Your task to perform on an android device: set default search engine in the chrome app Image 0: 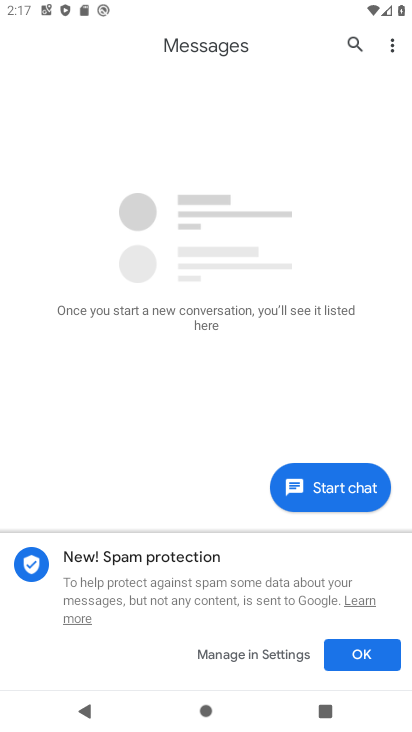
Step 0: press home button
Your task to perform on an android device: set default search engine in the chrome app Image 1: 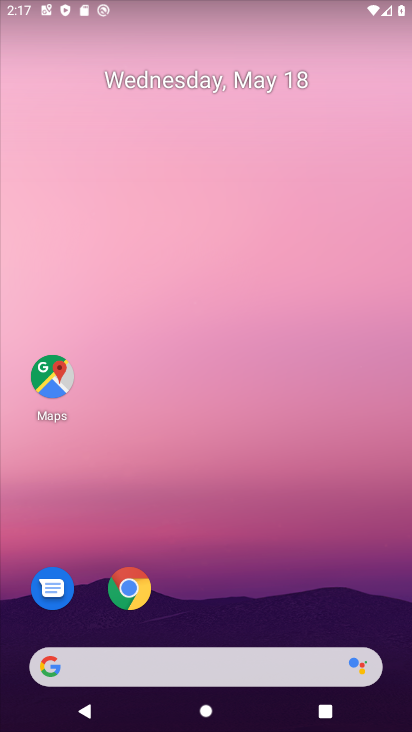
Step 1: drag from (350, 583) to (323, 140)
Your task to perform on an android device: set default search engine in the chrome app Image 2: 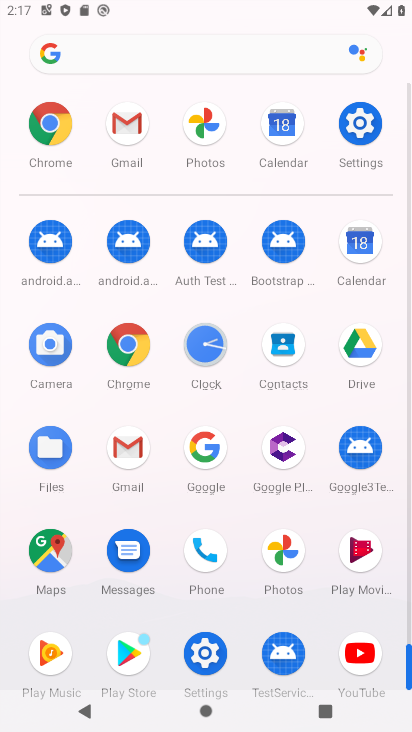
Step 2: click (137, 366)
Your task to perform on an android device: set default search engine in the chrome app Image 3: 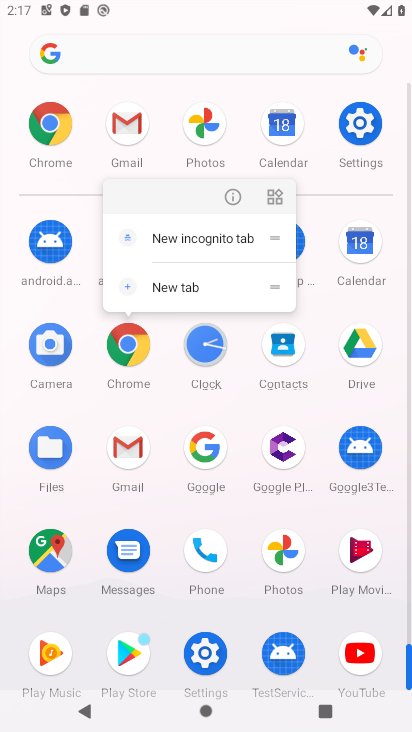
Step 3: click (137, 366)
Your task to perform on an android device: set default search engine in the chrome app Image 4: 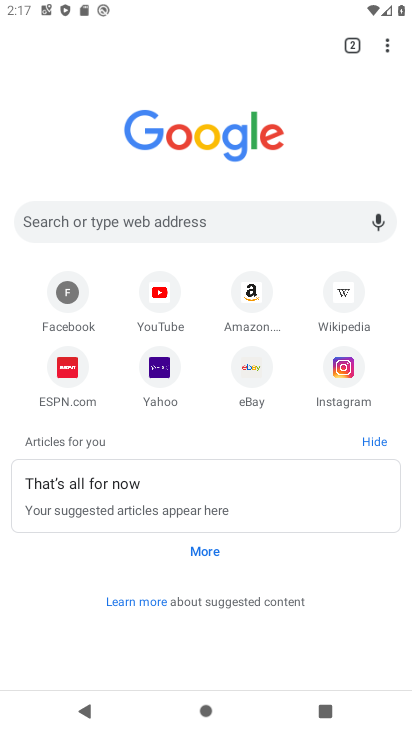
Step 4: click (385, 46)
Your task to perform on an android device: set default search engine in the chrome app Image 5: 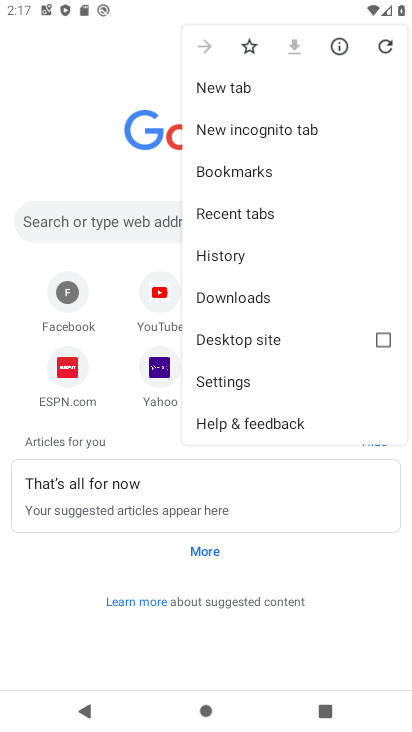
Step 5: click (238, 381)
Your task to perform on an android device: set default search engine in the chrome app Image 6: 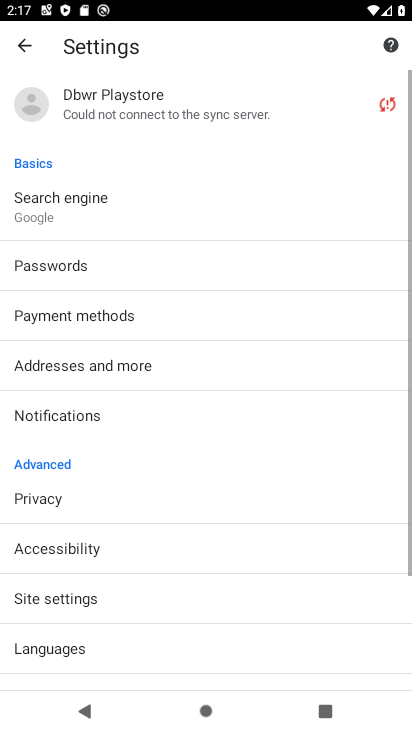
Step 6: drag from (276, 575) to (287, 462)
Your task to perform on an android device: set default search engine in the chrome app Image 7: 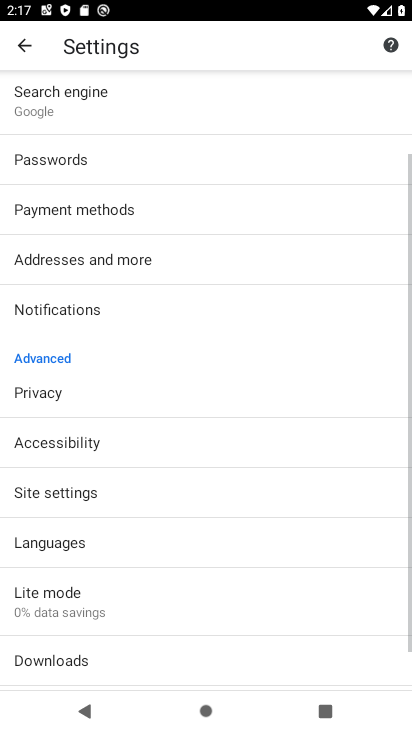
Step 7: drag from (270, 629) to (265, 471)
Your task to perform on an android device: set default search engine in the chrome app Image 8: 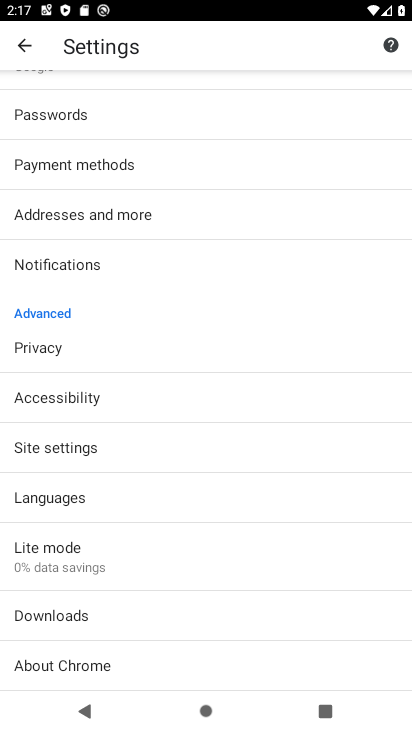
Step 8: drag from (240, 640) to (240, 414)
Your task to perform on an android device: set default search engine in the chrome app Image 9: 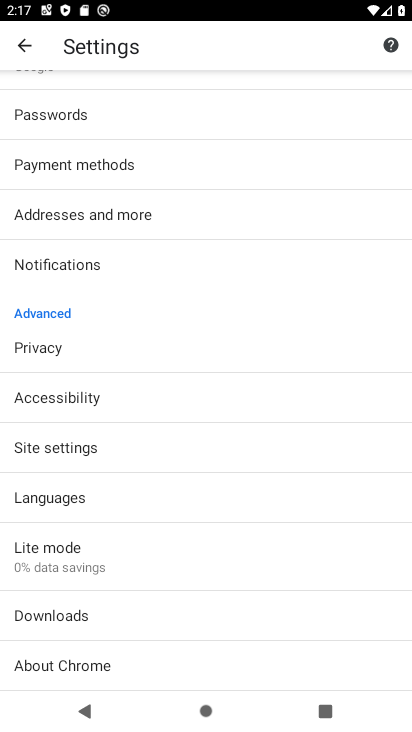
Step 9: drag from (249, 282) to (237, 380)
Your task to perform on an android device: set default search engine in the chrome app Image 10: 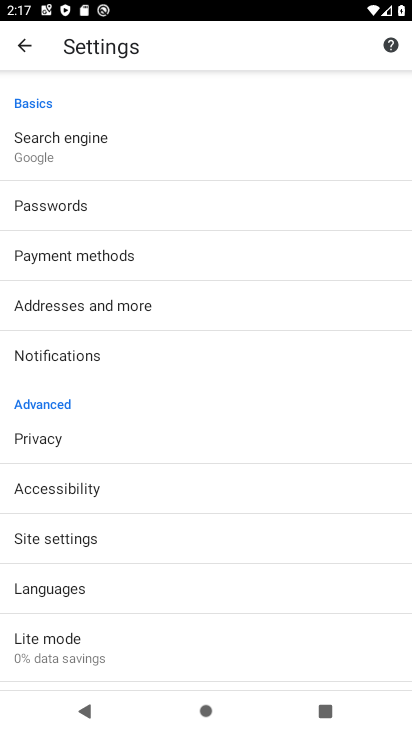
Step 10: drag from (235, 240) to (242, 388)
Your task to perform on an android device: set default search engine in the chrome app Image 11: 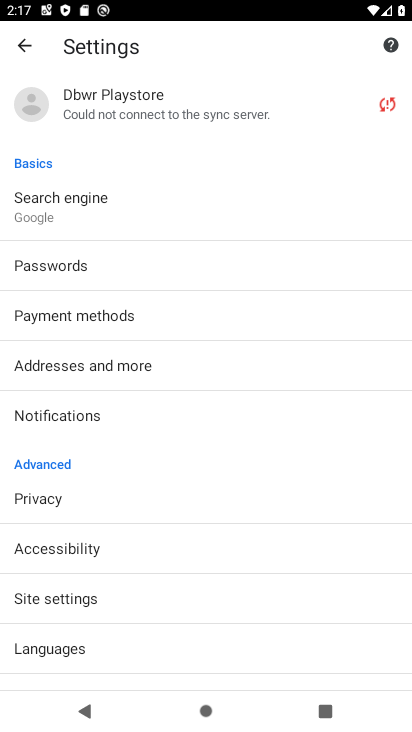
Step 11: drag from (239, 267) to (222, 390)
Your task to perform on an android device: set default search engine in the chrome app Image 12: 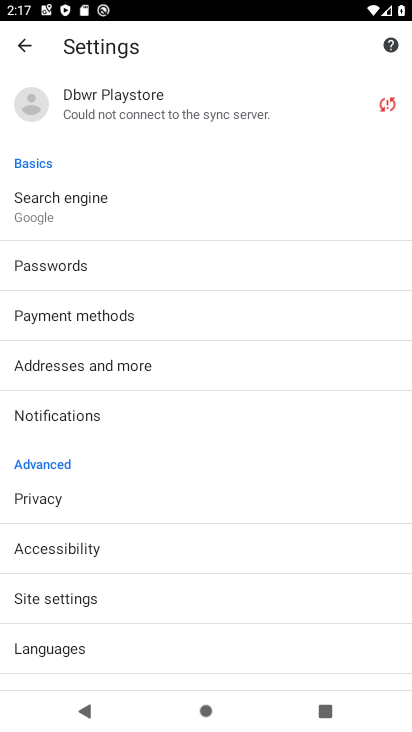
Step 12: click (80, 213)
Your task to perform on an android device: set default search engine in the chrome app Image 13: 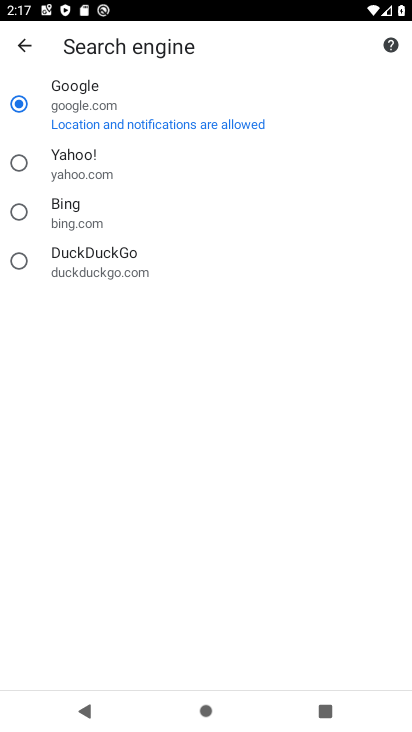
Step 13: click (43, 218)
Your task to perform on an android device: set default search engine in the chrome app Image 14: 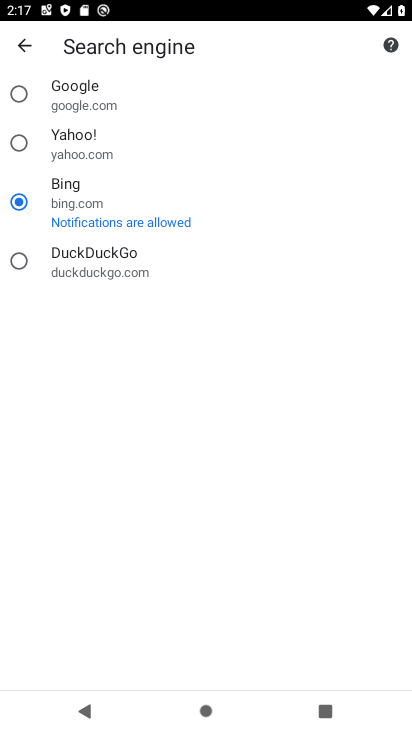
Step 14: task complete